Your task to perform on an android device: Set the phone to "Do not disturb". Image 0: 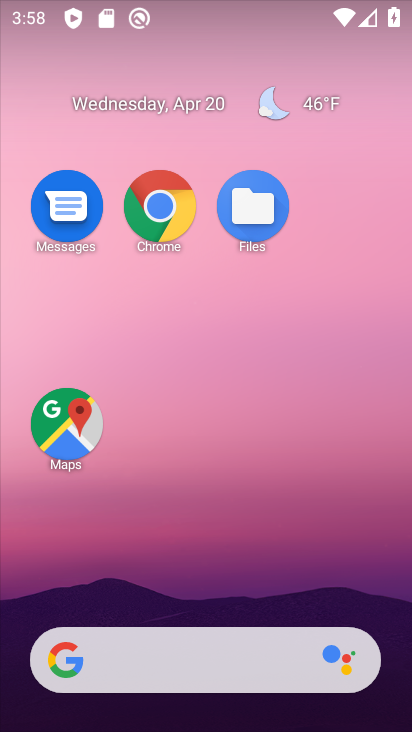
Step 0: drag from (199, 583) to (248, 4)
Your task to perform on an android device: Set the phone to "Do not disturb". Image 1: 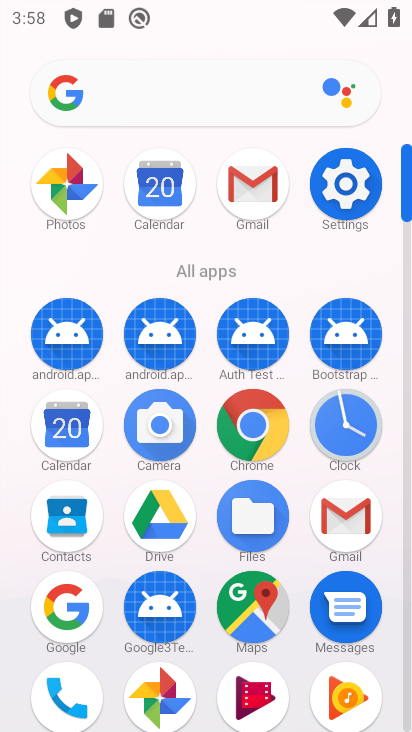
Step 1: click (347, 197)
Your task to perform on an android device: Set the phone to "Do not disturb". Image 2: 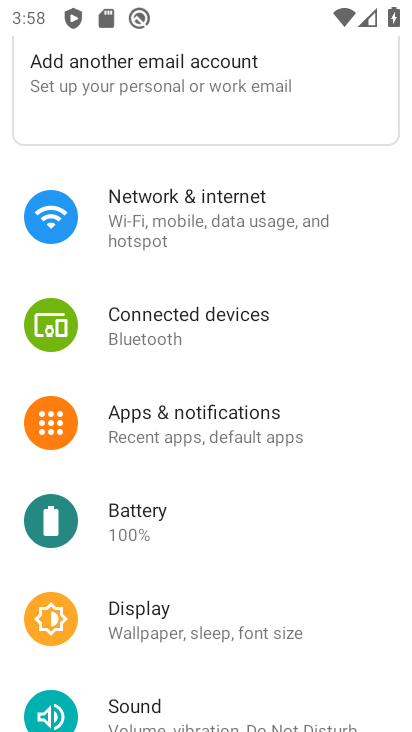
Step 2: click (142, 704)
Your task to perform on an android device: Set the phone to "Do not disturb". Image 3: 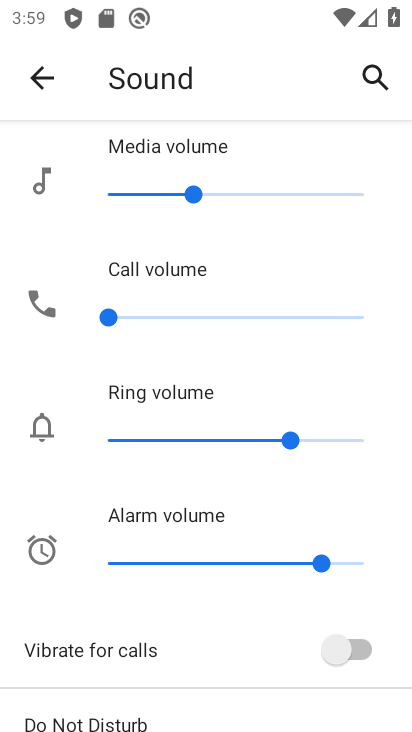
Step 3: drag from (143, 606) to (239, 192)
Your task to perform on an android device: Set the phone to "Do not disturb". Image 4: 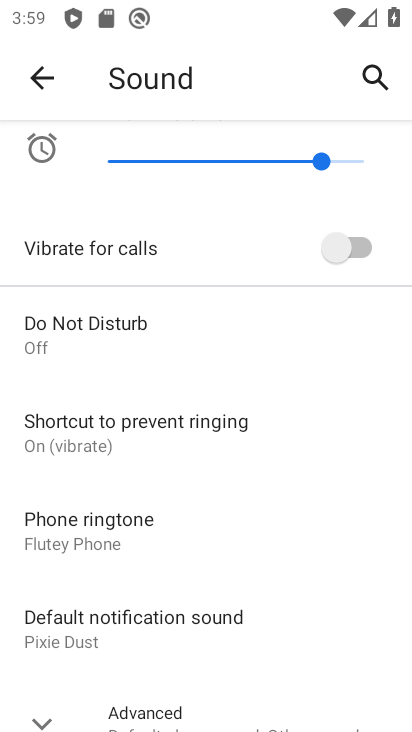
Step 4: click (65, 348)
Your task to perform on an android device: Set the phone to "Do not disturb". Image 5: 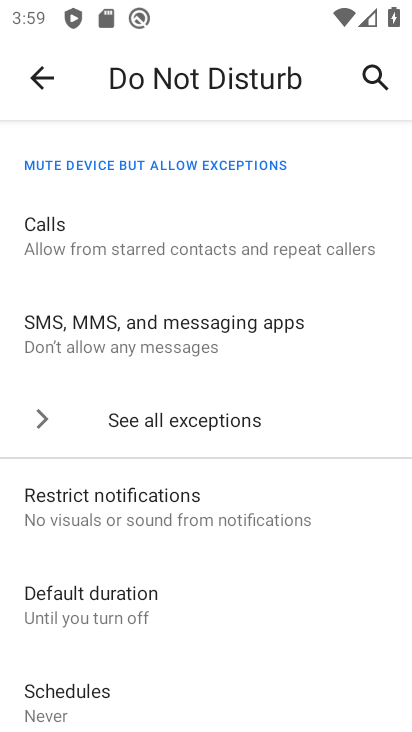
Step 5: drag from (191, 567) to (263, 227)
Your task to perform on an android device: Set the phone to "Do not disturb". Image 6: 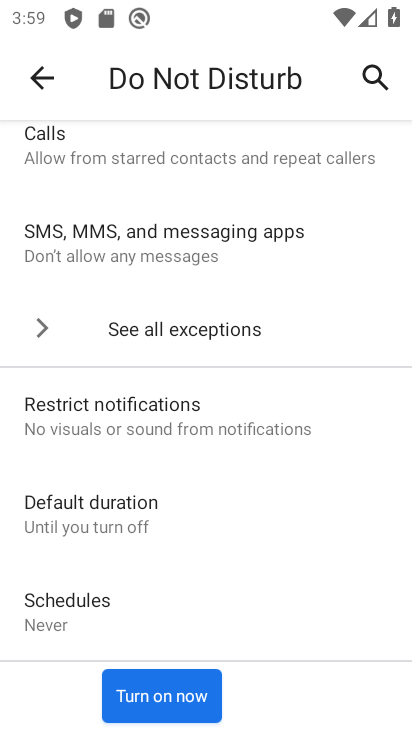
Step 6: click (156, 699)
Your task to perform on an android device: Set the phone to "Do not disturb". Image 7: 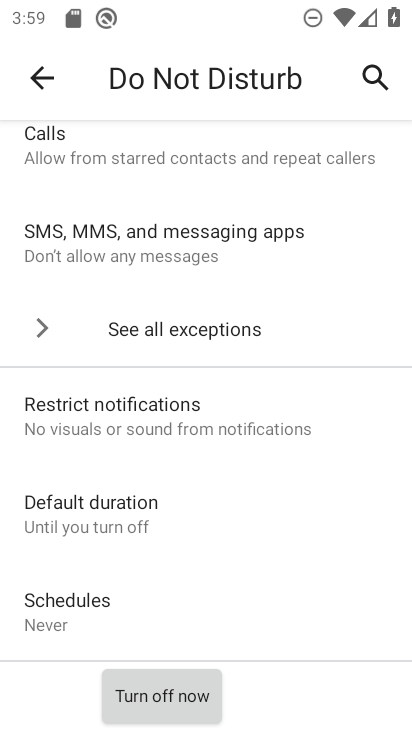
Step 7: task complete